Your task to perform on an android device: Search for logitech g933 on ebay.com, select the first entry, and add it to the cart. Image 0: 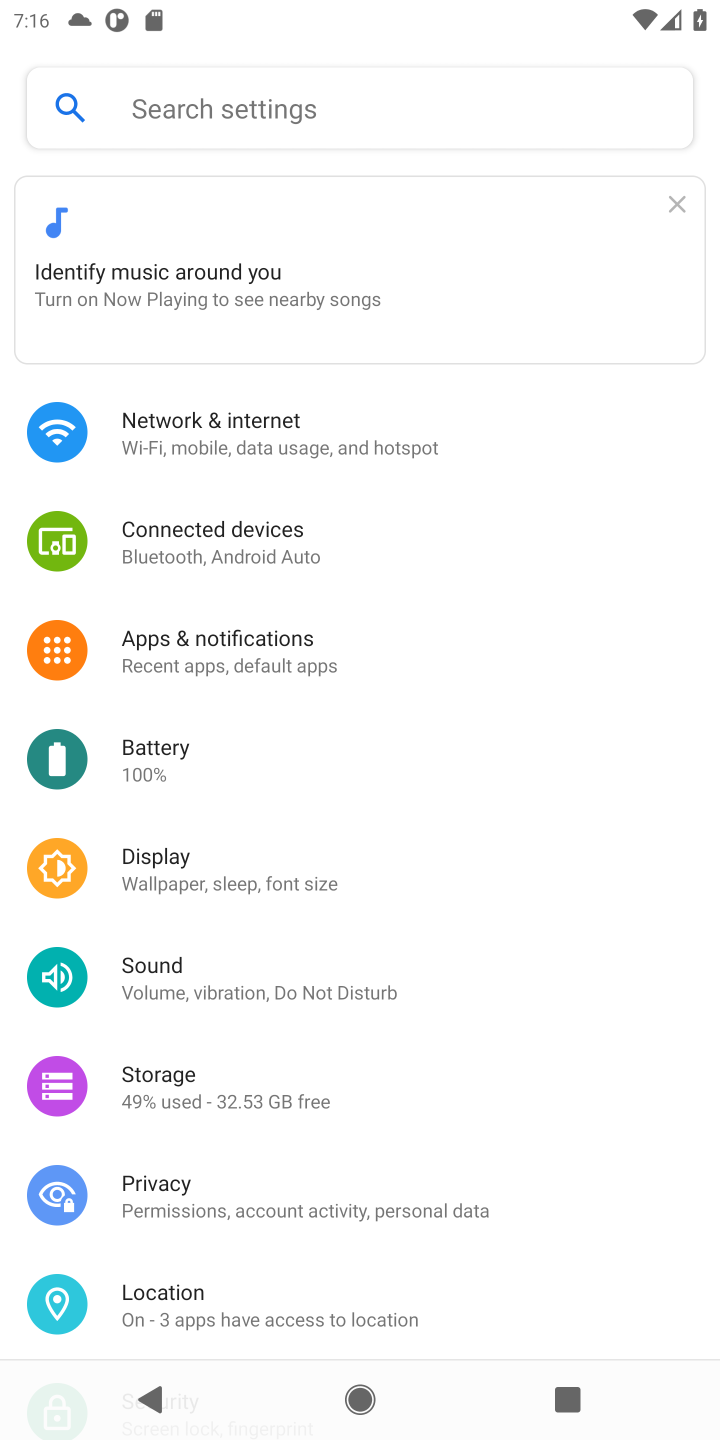
Step 0: press home button
Your task to perform on an android device: Search for logitech g933 on ebay.com, select the first entry, and add it to the cart. Image 1: 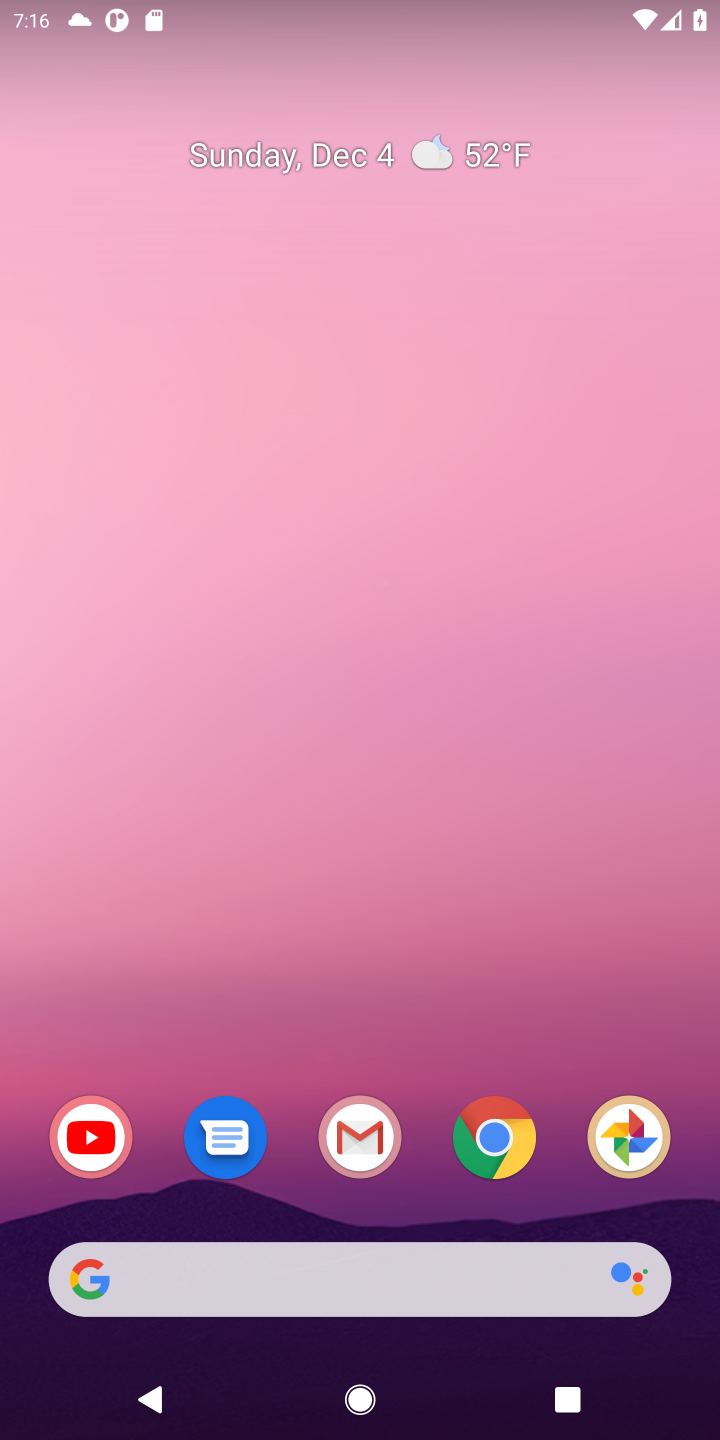
Step 1: click (498, 1135)
Your task to perform on an android device: Search for logitech g933 on ebay.com, select the first entry, and add it to the cart. Image 2: 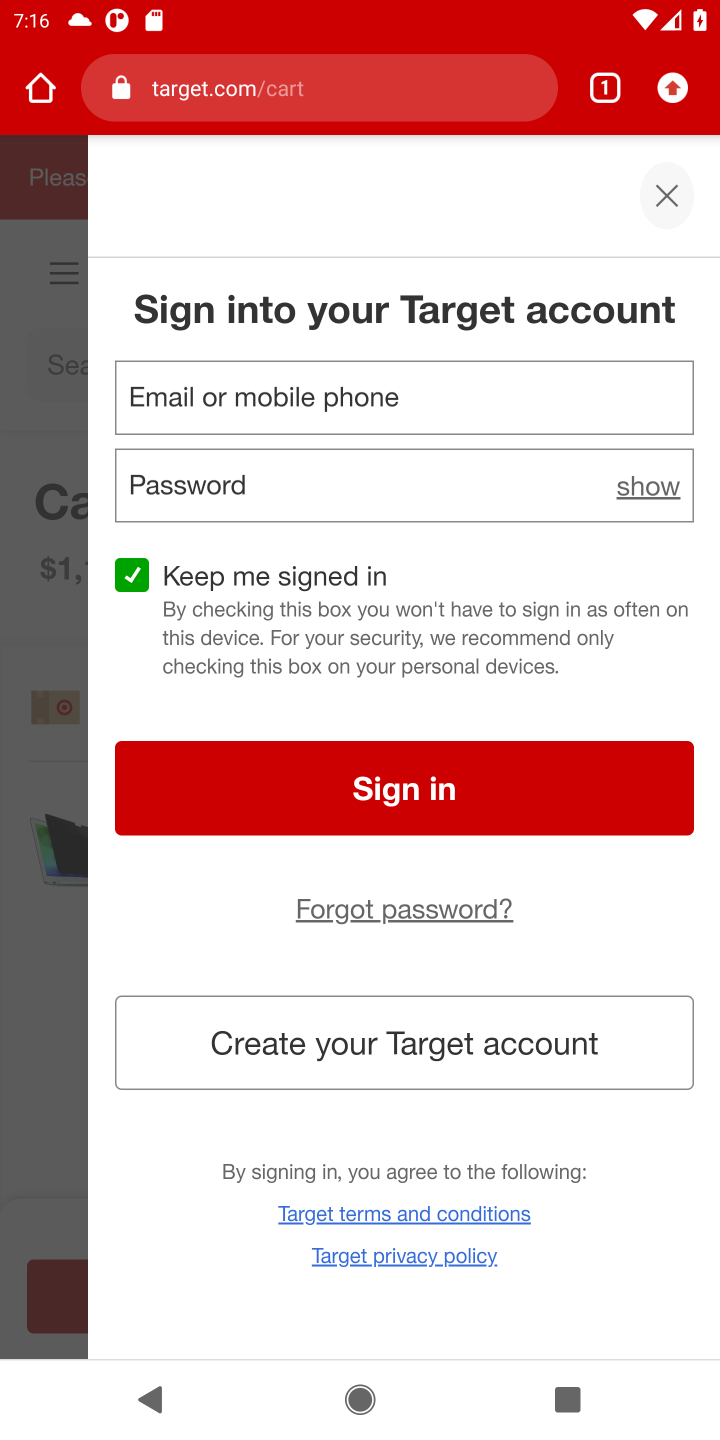
Step 2: click (392, 61)
Your task to perform on an android device: Search for logitech g933 on ebay.com, select the first entry, and add it to the cart. Image 3: 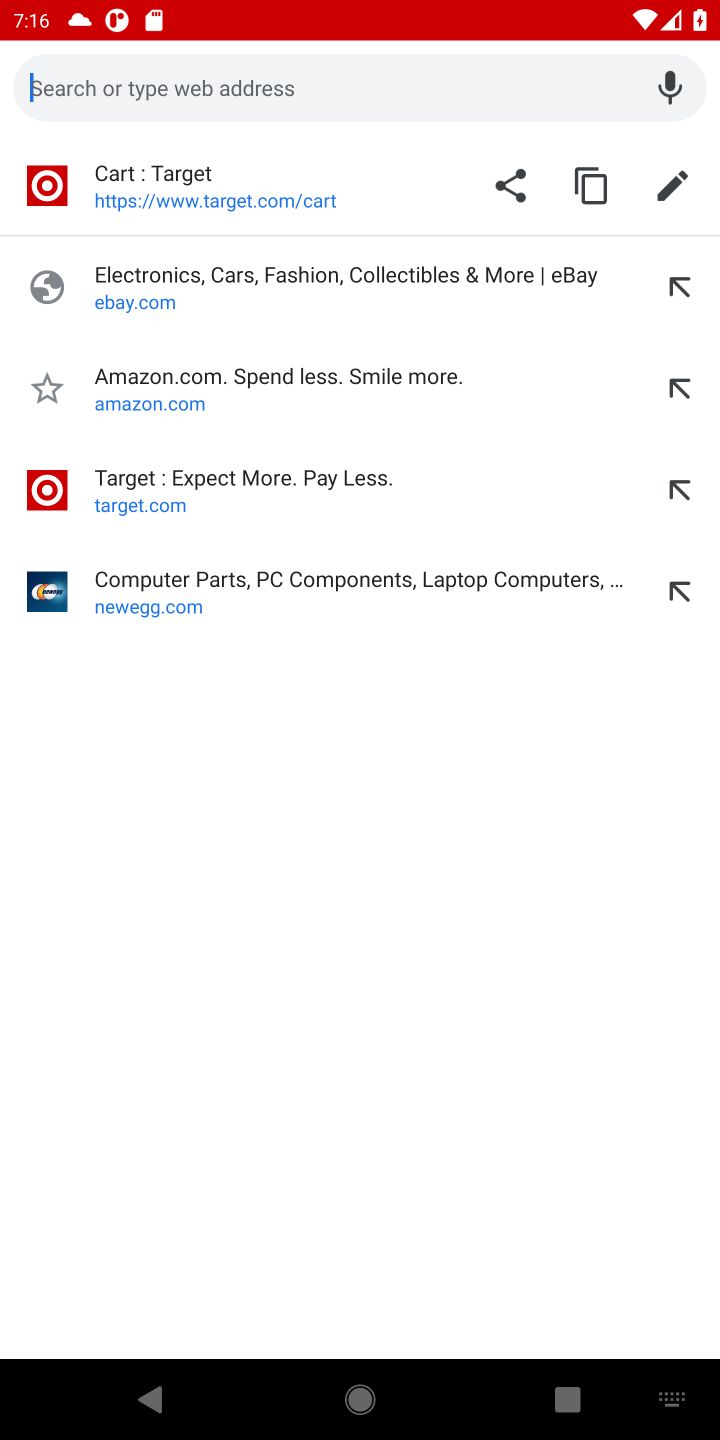
Step 3: type "ebay.com"
Your task to perform on an android device: Search for logitech g933 on ebay.com, select the first entry, and add it to the cart. Image 4: 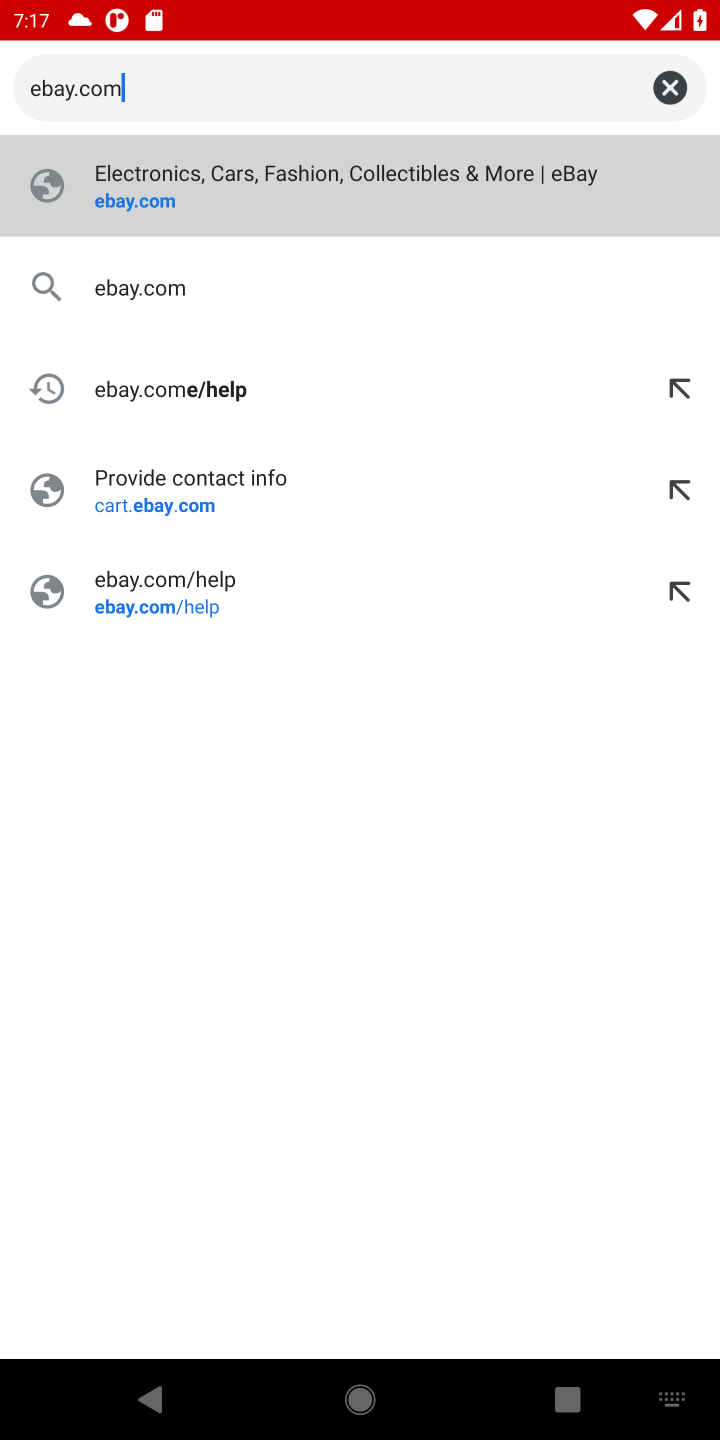
Step 4: click (154, 158)
Your task to perform on an android device: Search for logitech g933 on ebay.com, select the first entry, and add it to the cart. Image 5: 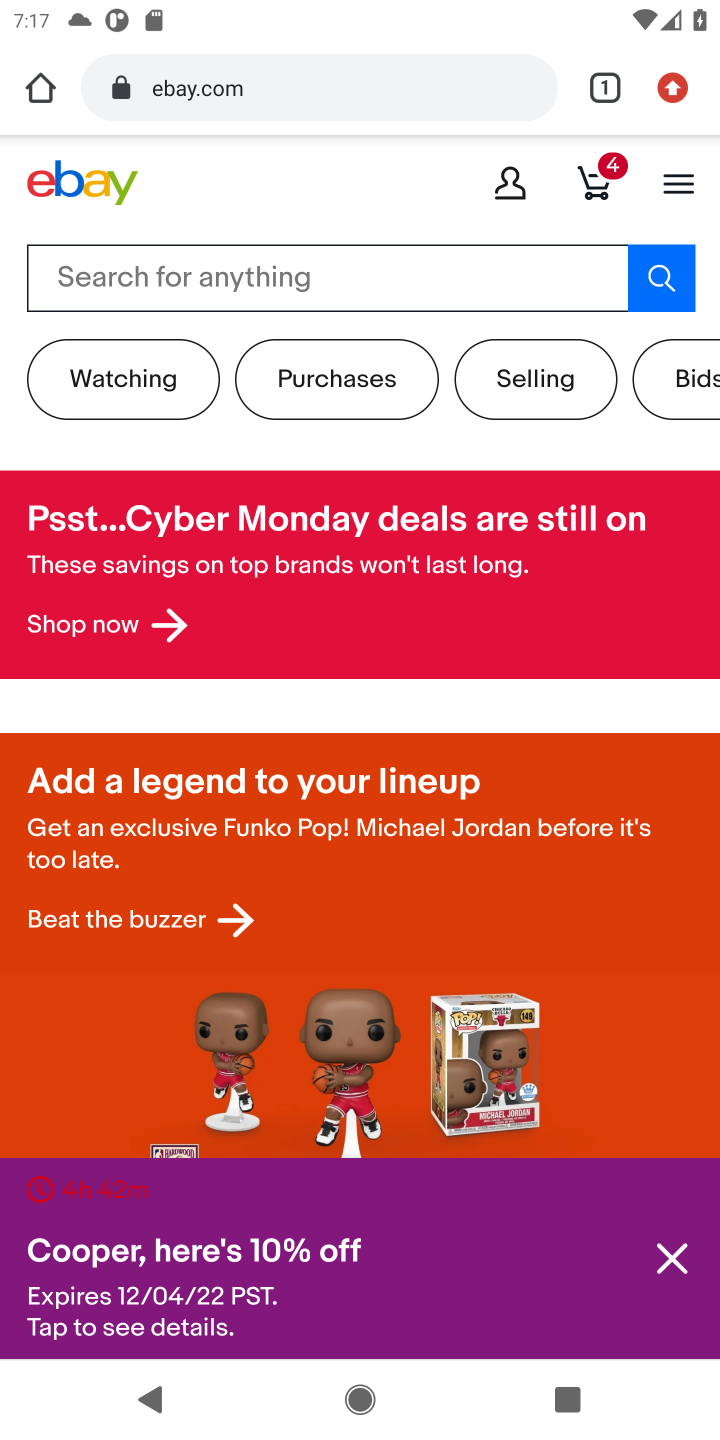
Step 5: click (224, 274)
Your task to perform on an android device: Search for logitech g933 on ebay.com, select the first entry, and add it to the cart. Image 6: 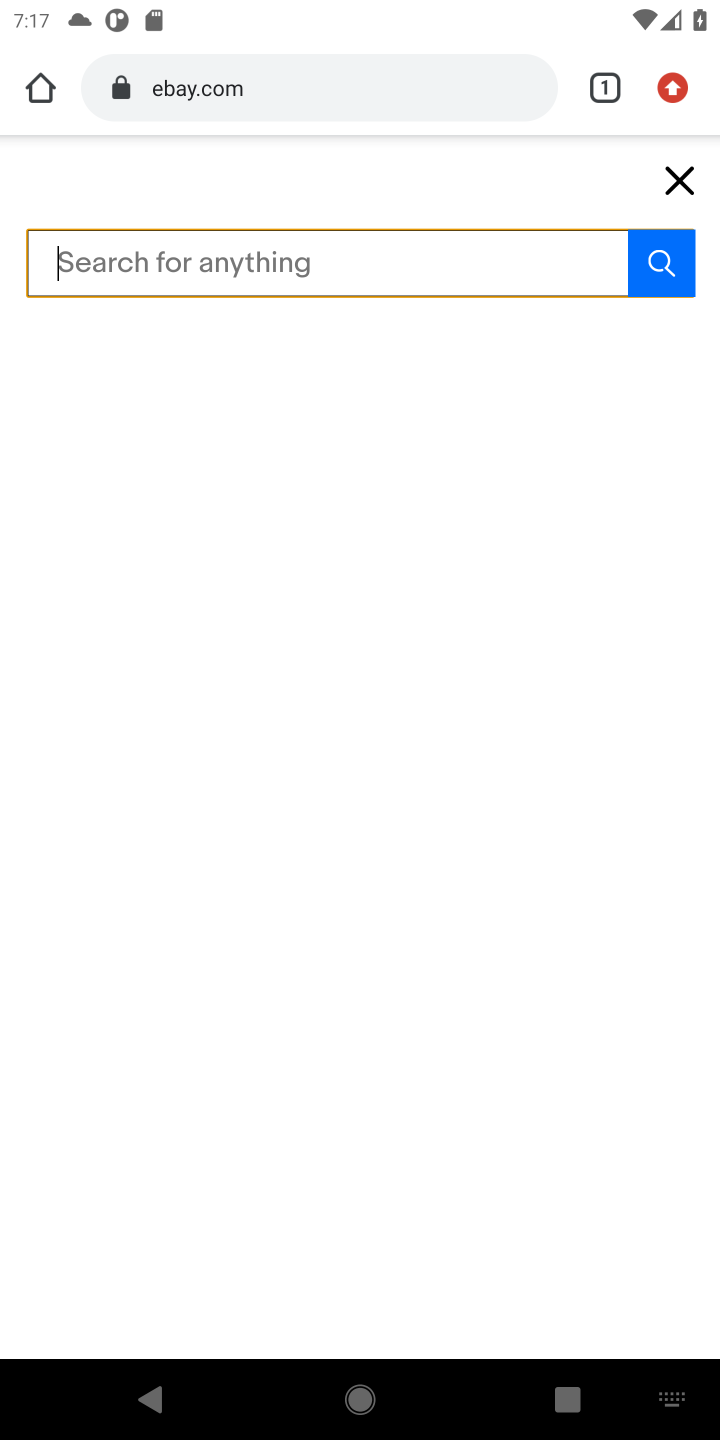
Step 6: type "logitech g933"
Your task to perform on an android device: Search for logitech g933 on ebay.com, select the first entry, and add it to the cart. Image 7: 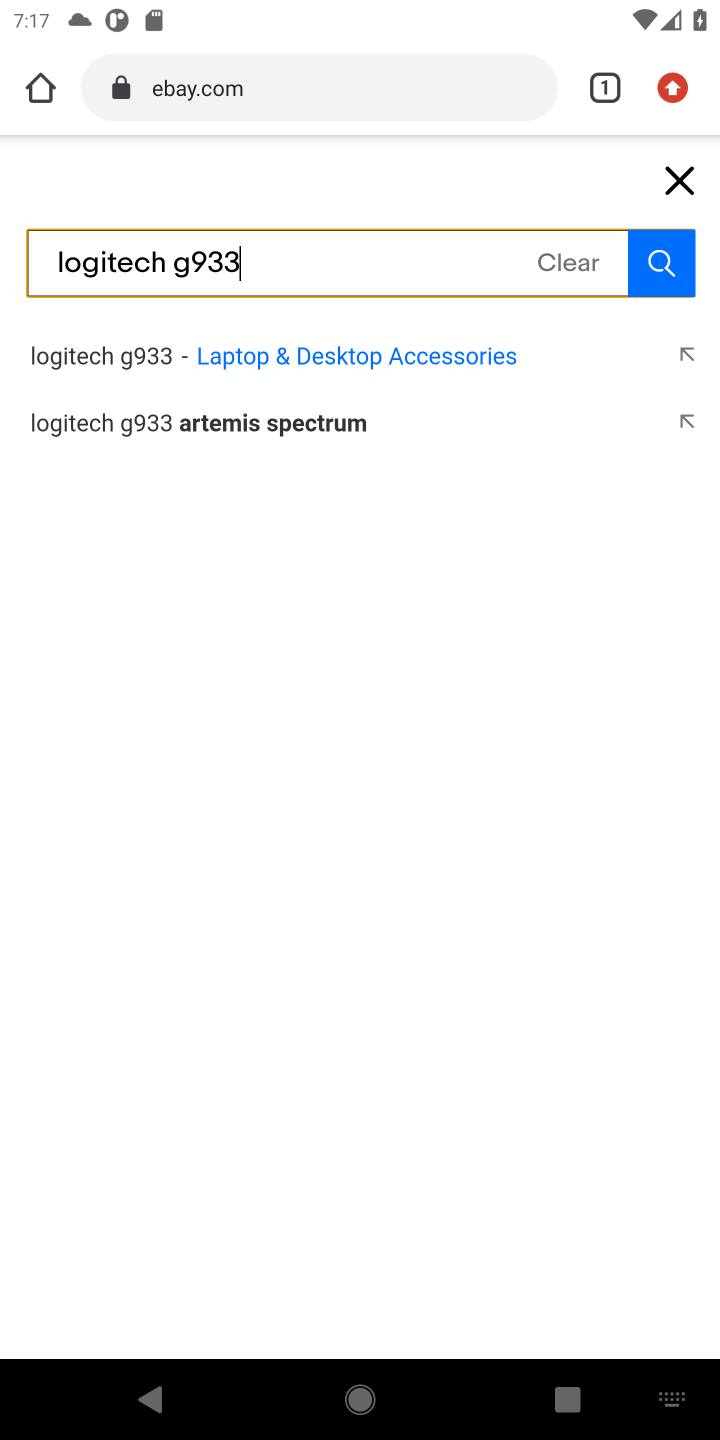
Step 7: click (75, 362)
Your task to perform on an android device: Search for logitech g933 on ebay.com, select the first entry, and add it to the cart. Image 8: 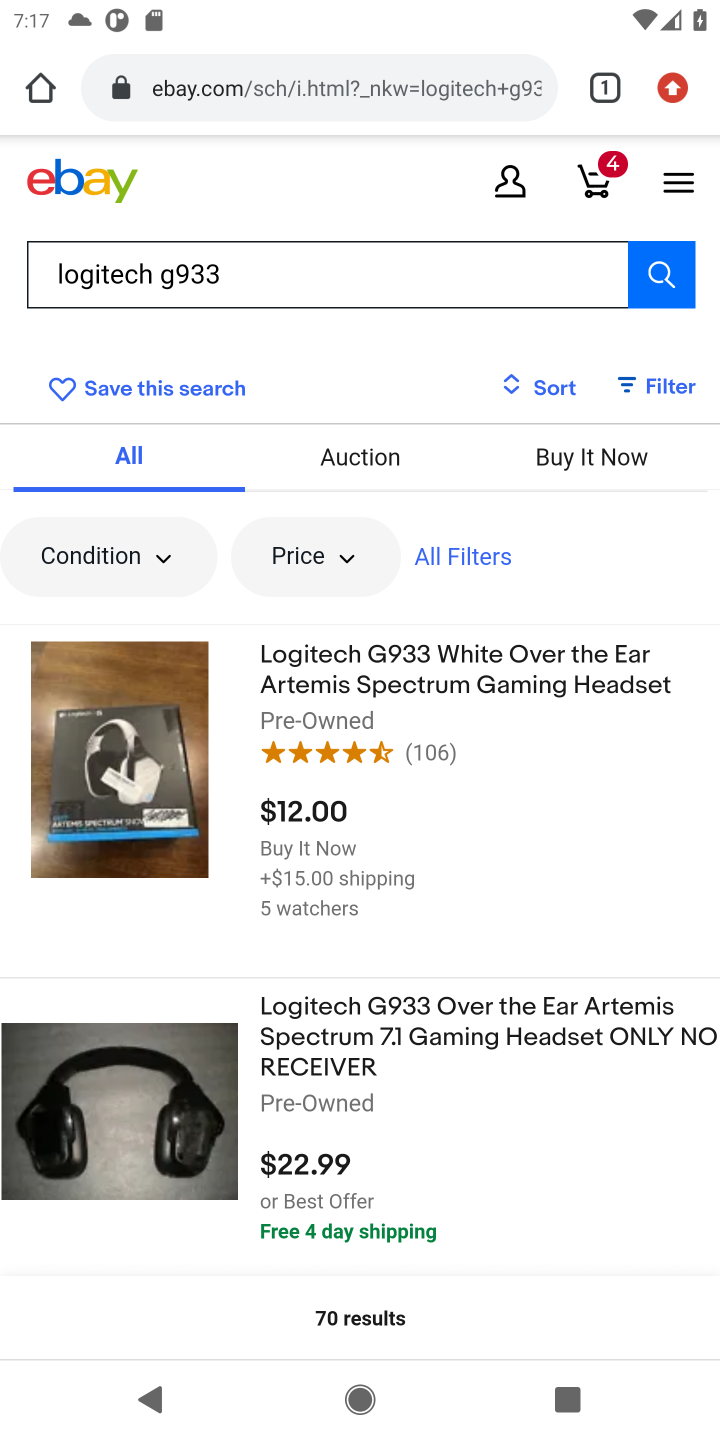
Step 8: click (369, 690)
Your task to perform on an android device: Search for logitech g933 on ebay.com, select the first entry, and add it to the cart. Image 9: 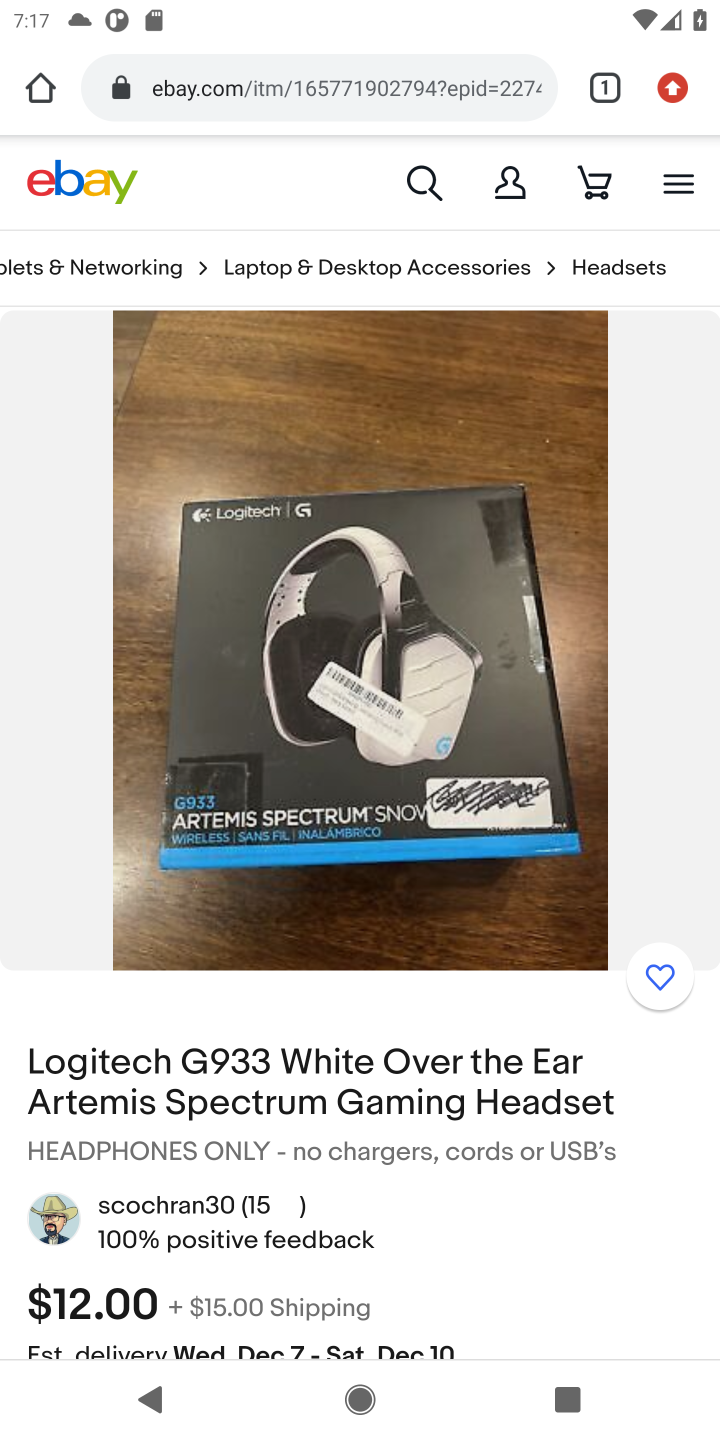
Step 9: drag from (405, 1043) to (250, 327)
Your task to perform on an android device: Search for logitech g933 on ebay.com, select the first entry, and add it to the cart. Image 10: 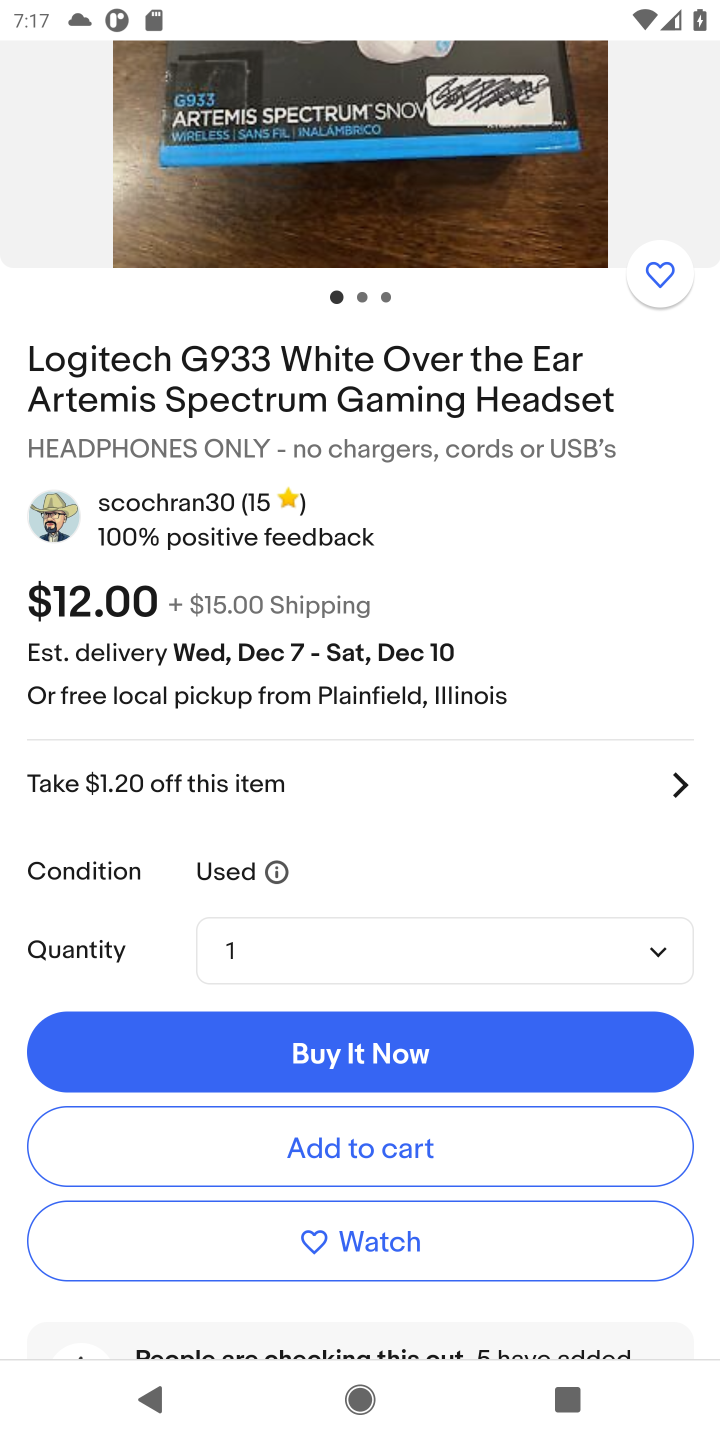
Step 10: click (337, 1148)
Your task to perform on an android device: Search for logitech g933 on ebay.com, select the first entry, and add it to the cart. Image 11: 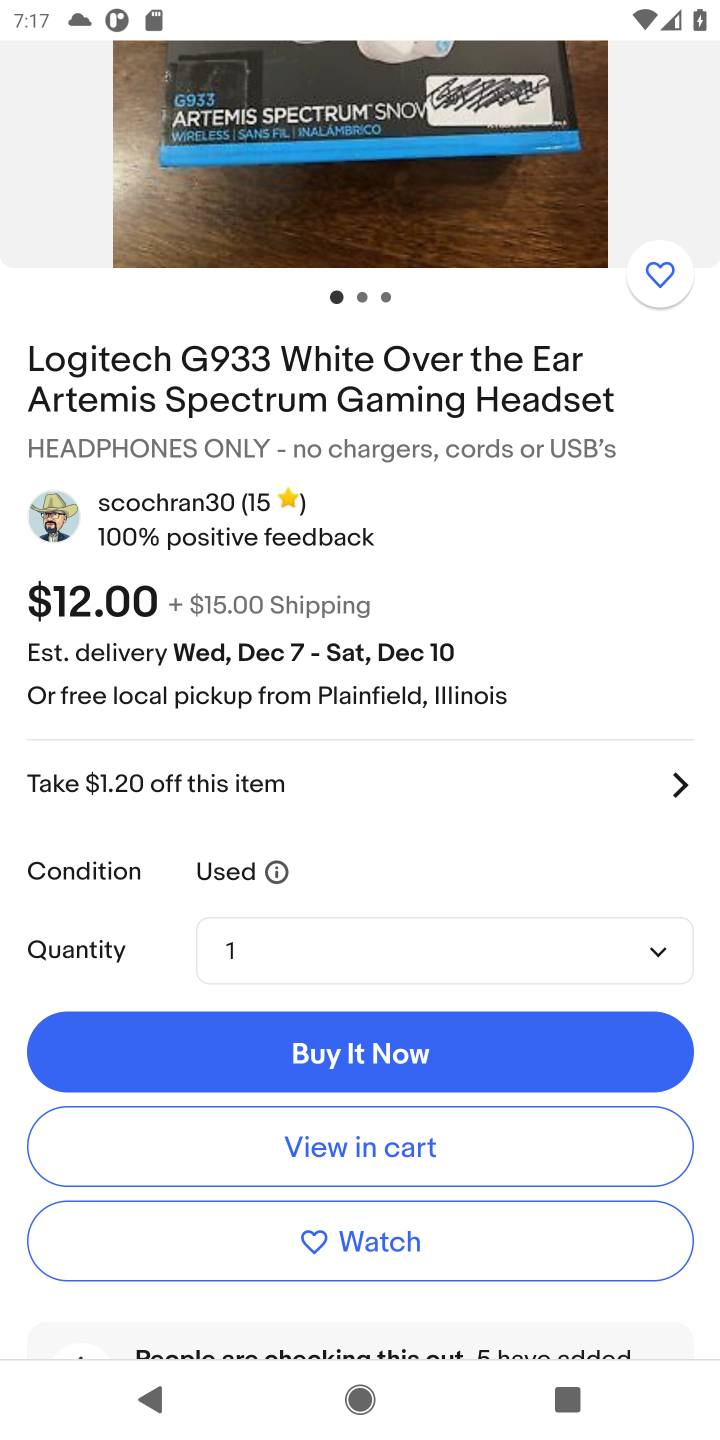
Step 11: task complete